Your task to perform on an android device: turn on airplane mode Image 0: 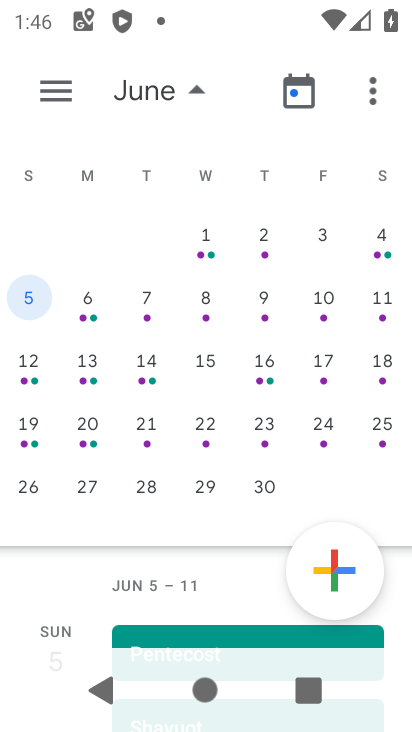
Step 0: drag from (254, 615) to (265, 216)
Your task to perform on an android device: turn on airplane mode Image 1: 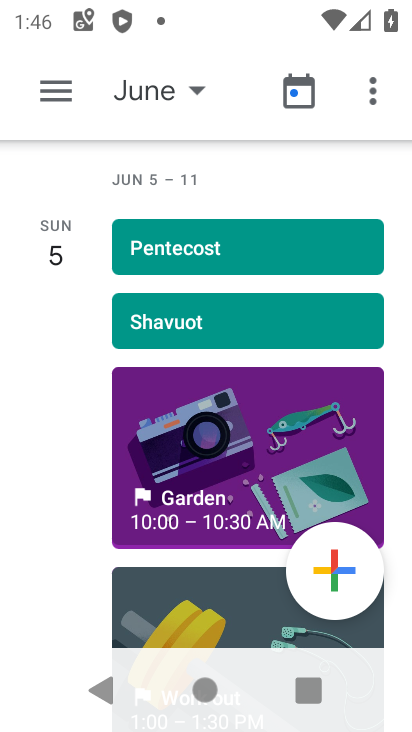
Step 1: press home button
Your task to perform on an android device: turn on airplane mode Image 2: 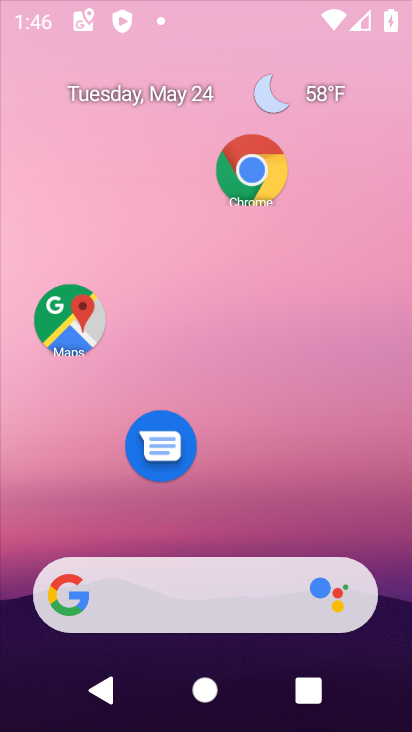
Step 2: drag from (213, 637) to (202, 240)
Your task to perform on an android device: turn on airplane mode Image 3: 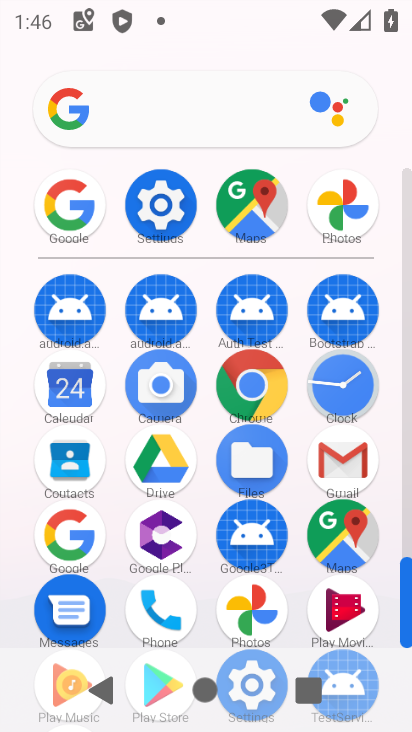
Step 3: click (174, 229)
Your task to perform on an android device: turn on airplane mode Image 4: 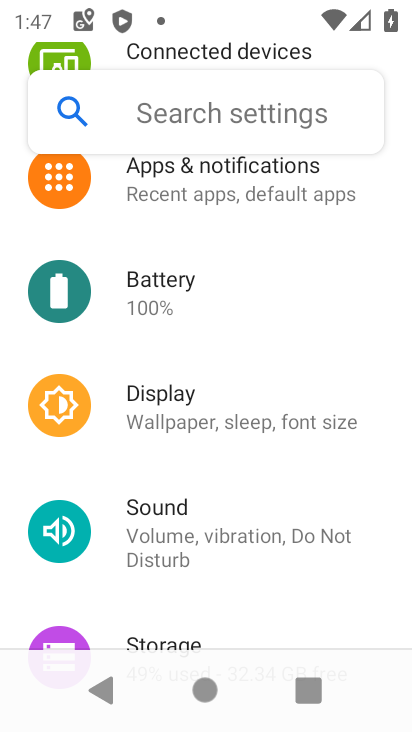
Step 4: drag from (175, 296) to (229, 637)
Your task to perform on an android device: turn on airplane mode Image 5: 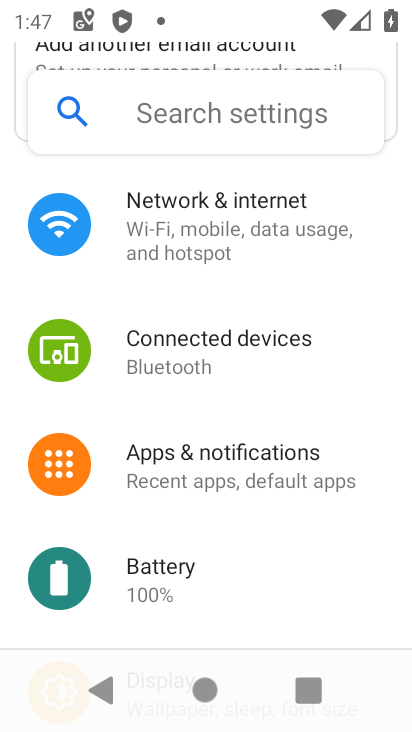
Step 5: drag from (272, 310) to (291, 581)
Your task to perform on an android device: turn on airplane mode Image 6: 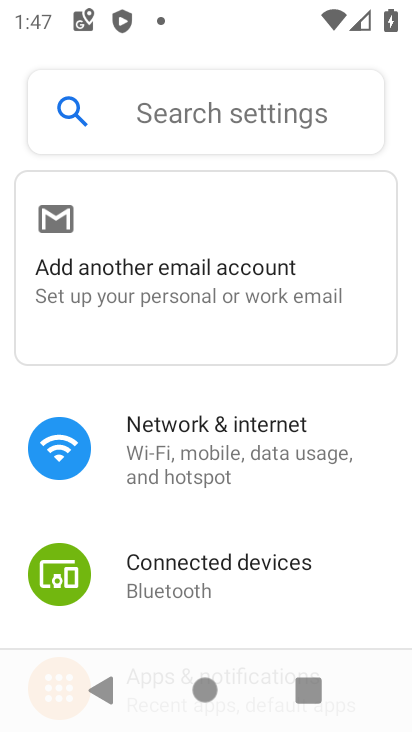
Step 6: click (203, 448)
Your task to perform on an android device: turn on airplane mode Image 7: 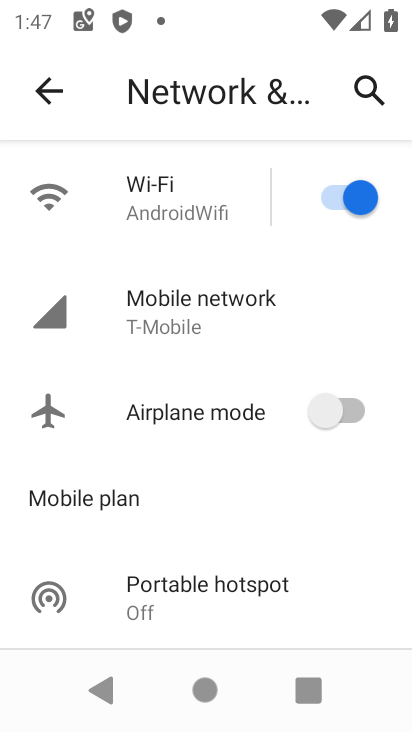
Step 7: click (233, 412)
Your task to perform on an android device: turn on airplane mode Image 8: 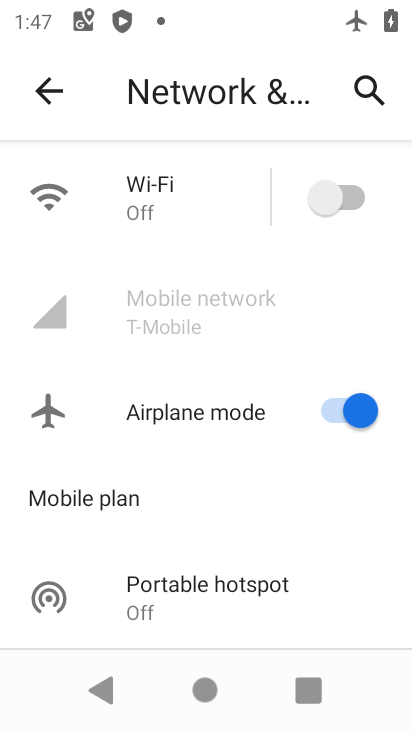
Step 8: task complete